Your task to perform on an android device: all mails in gmail Image 0: 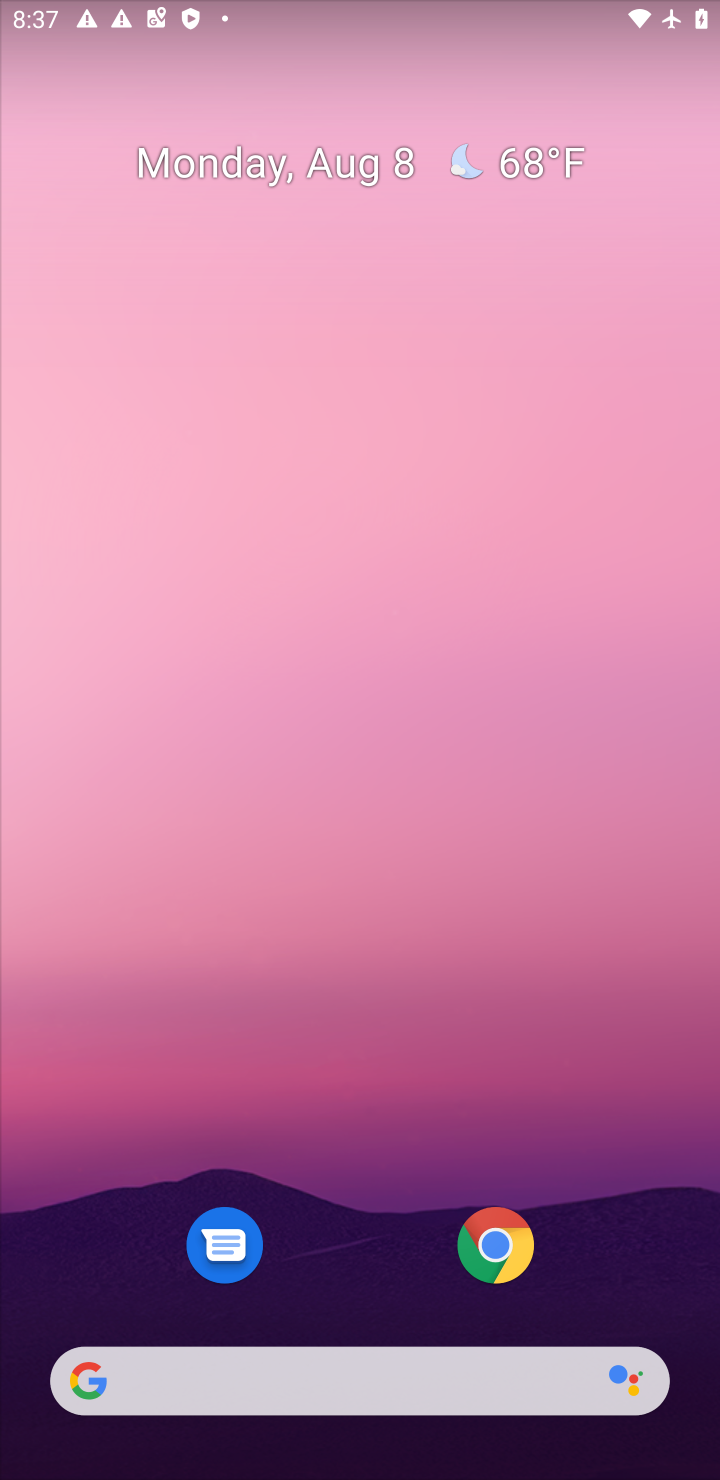
Step 0: drag from (313, 1222) to (299, 24)
Your task to perform on an android device: all mails in gmail Image 1: 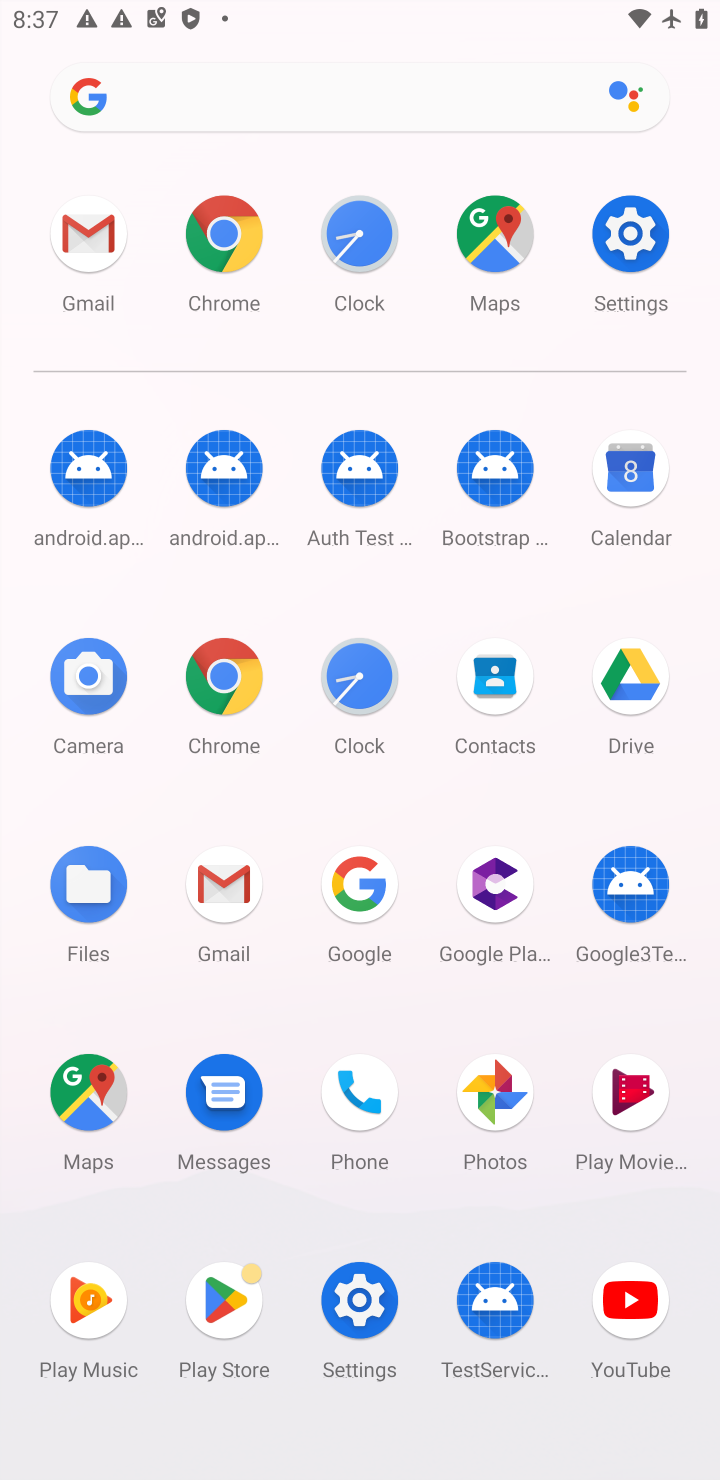
Step 1: click (202, 891)
Your task to perform on an android device: all mails in gmail Image 2: 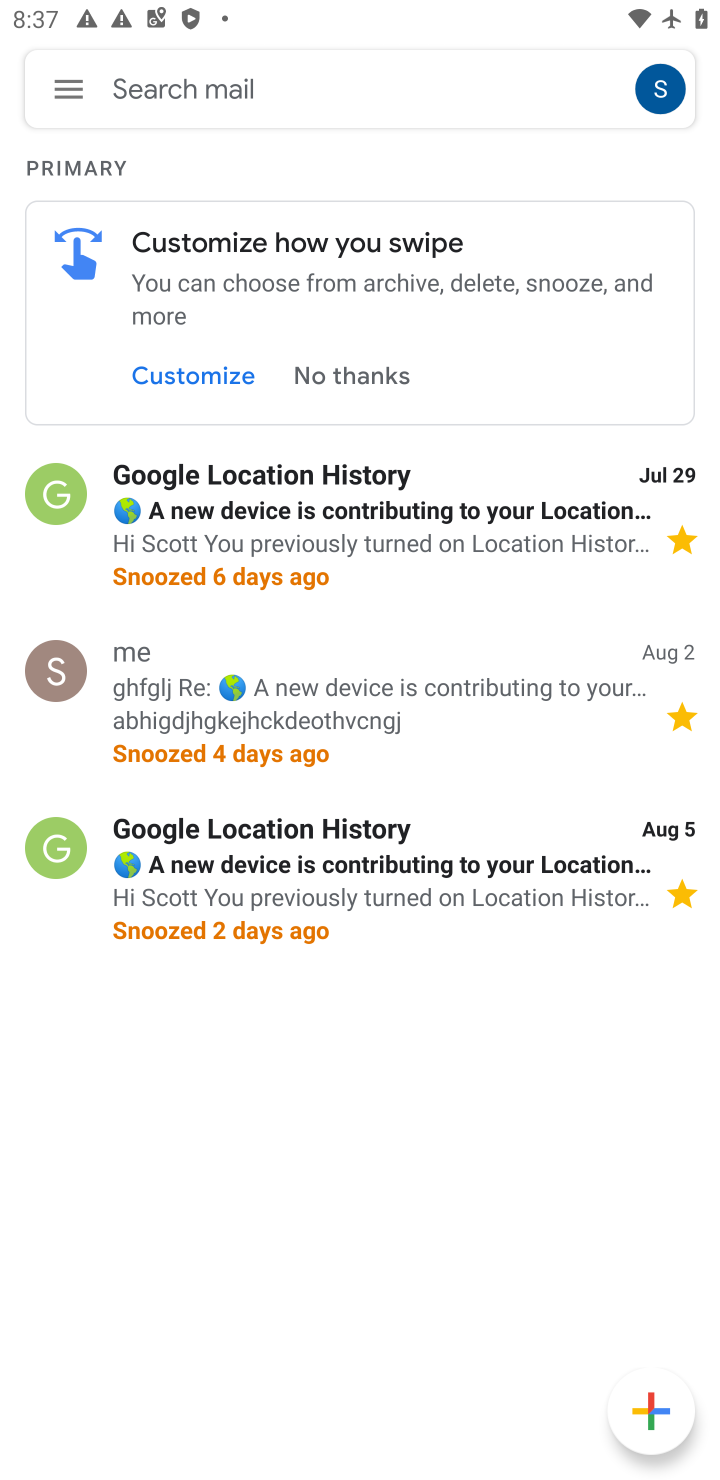
Step 2: click (68, 95)
Your task to perform on an android device: all mails in gmail Image 3: 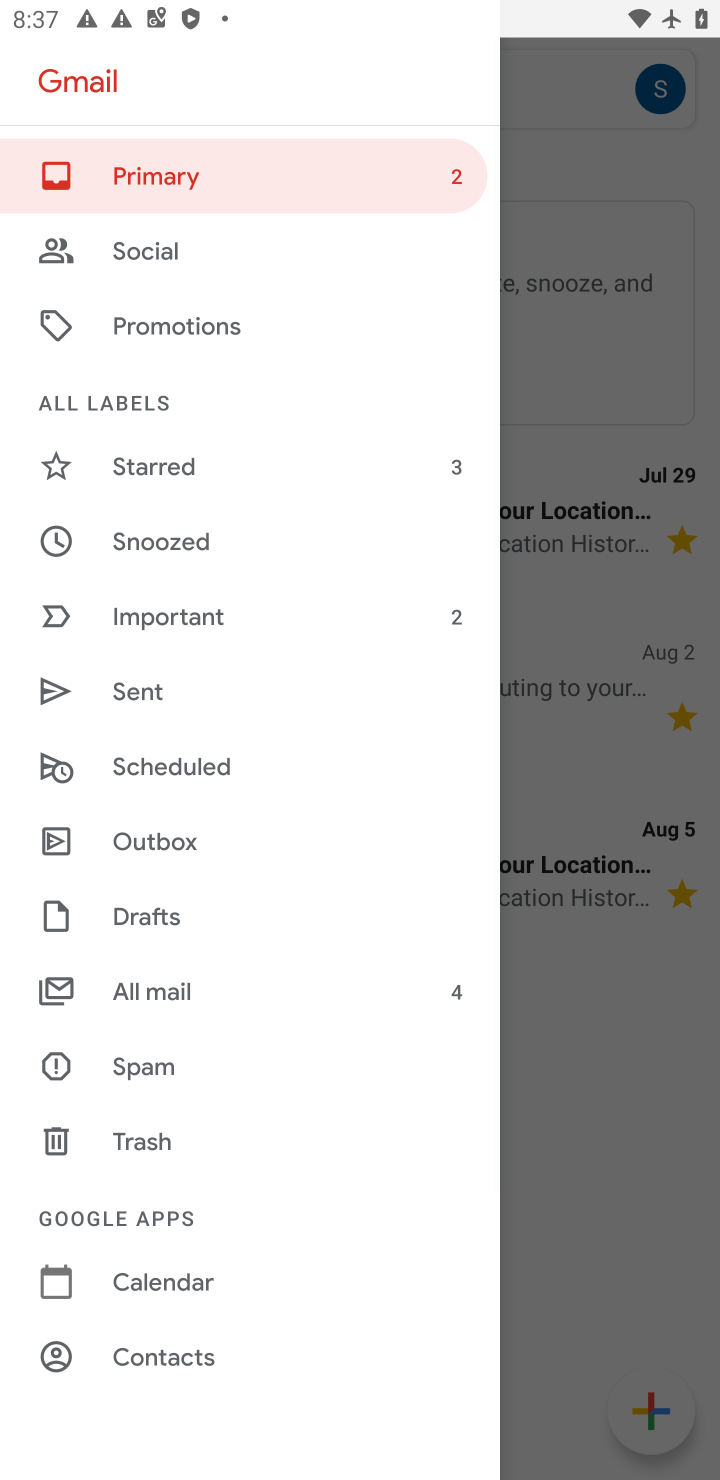
Step 3: click (198, 985)
Your task to perform on an android device: all mails in gmail Image 4: 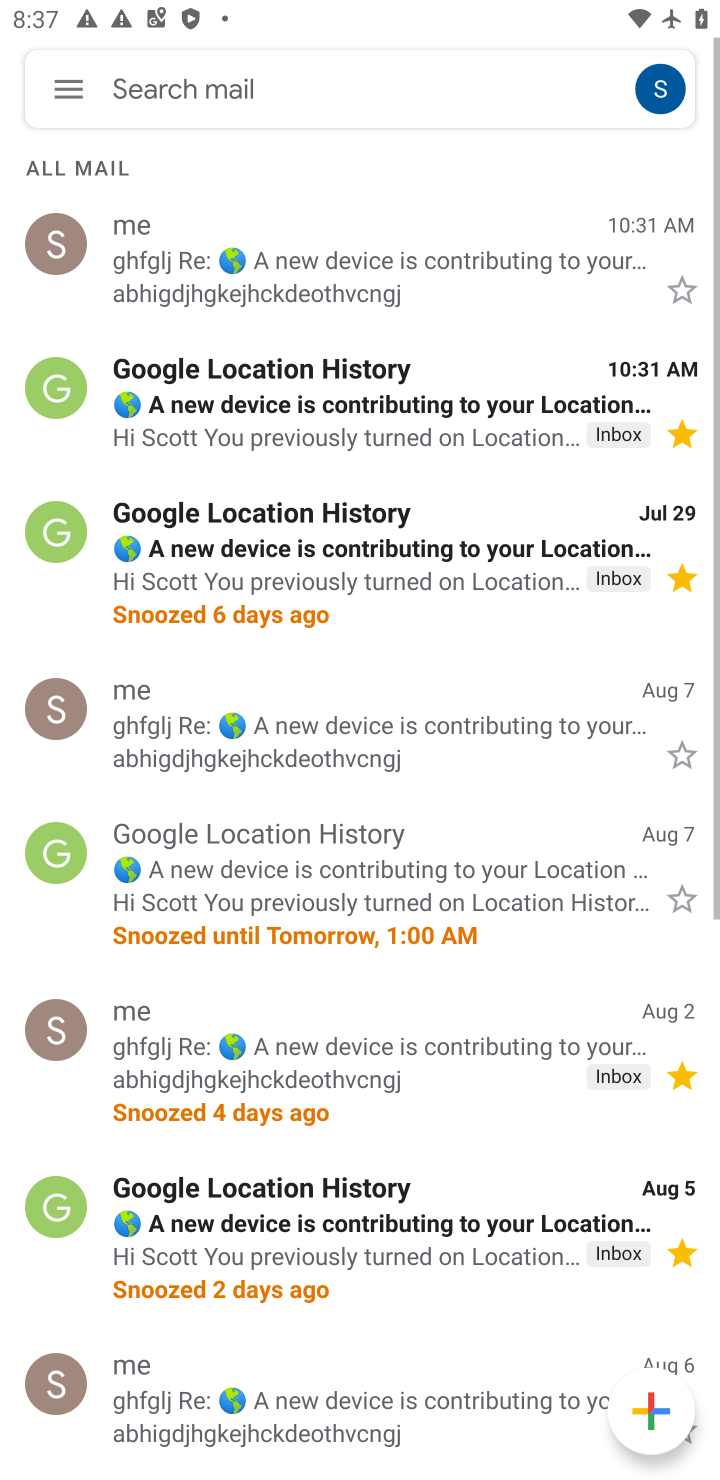
Step 4: task complete